Your task to perform on an android device: turn on the 24-hour format for clock Image 0: 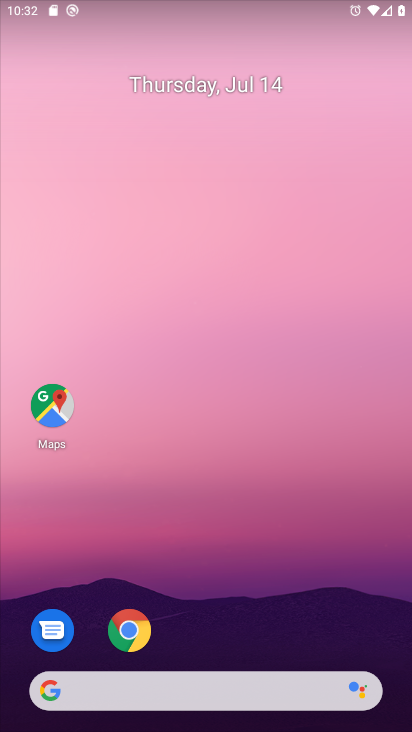
Step 0: drag from (178, 631) to (322, 14)
Your task to perform on an android device: turn on the 24-hour format for clock Image 1: 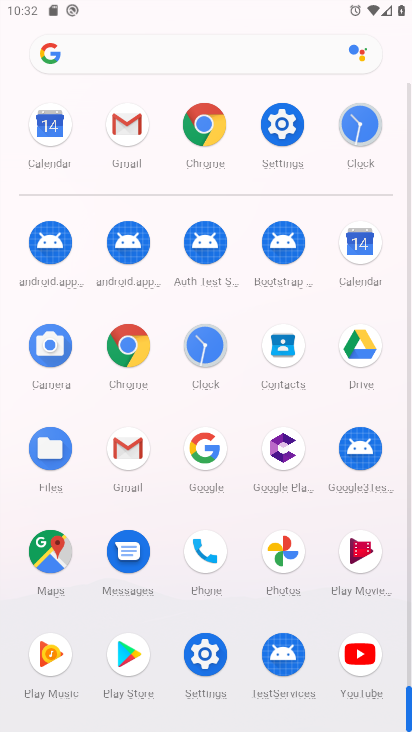
Step 1: click (195, 338)
Your task to perform on an android device: turn on the 24-hour format for clock Image 2: 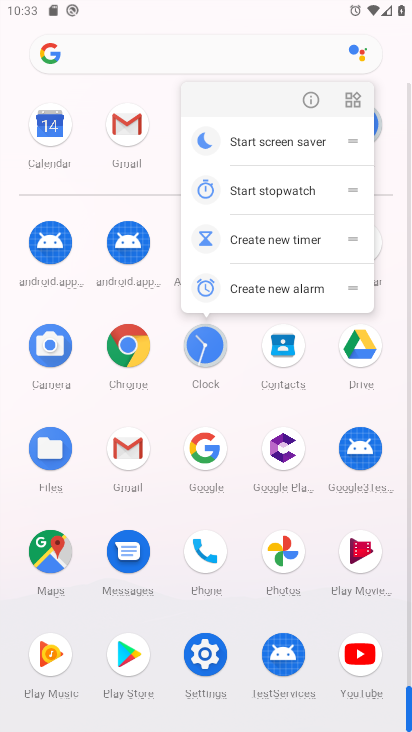
Step 2: click (315, 102)
Your task to perform on an android device: turn on the 24-hour format for clock Image 3: 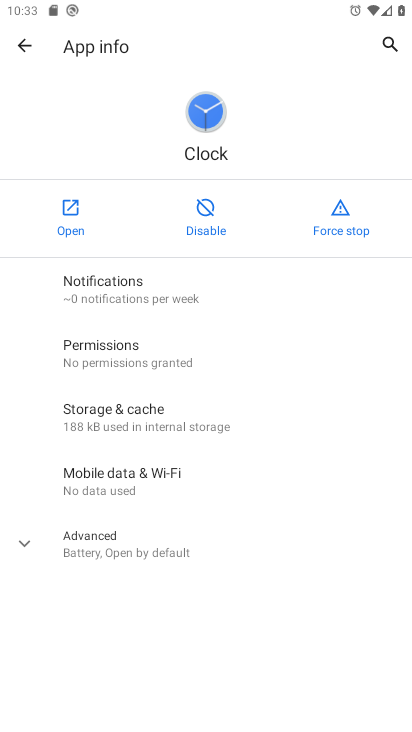
Step 3: click (69, 226)
Your task to perform on an android device: turn on the 24-hour format for clock Image 4: 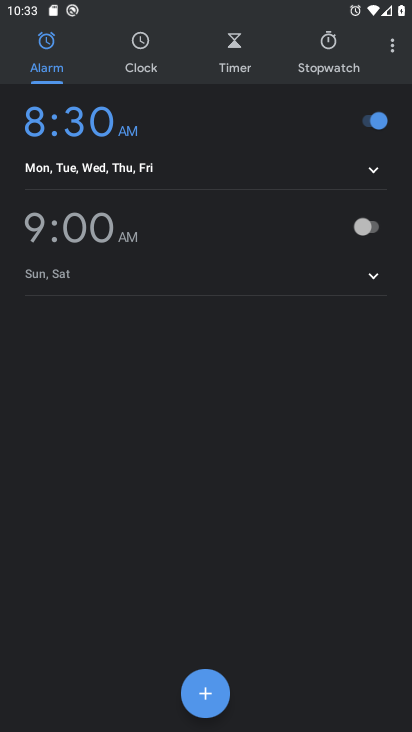
Step 4: click (390, 48)
Your task to perform on an android device: turn on the 24-hour format for clock Image 5: 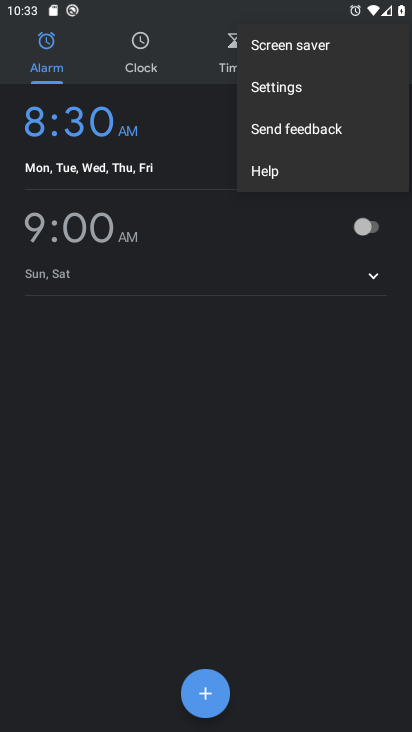
Step 5: click (291, 85)
Your task to perform on an android device: turn on the 24-hour format for clock Image 6: 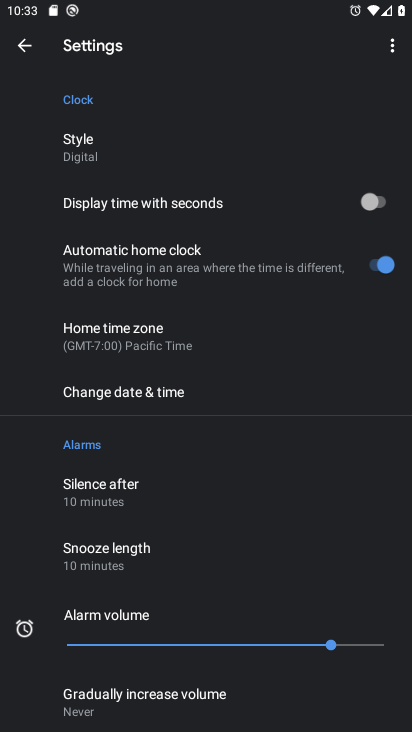
Step 6: click (141, 402)
Your task to perform on an android device: turn on the 24-hour format for clock Image 7: 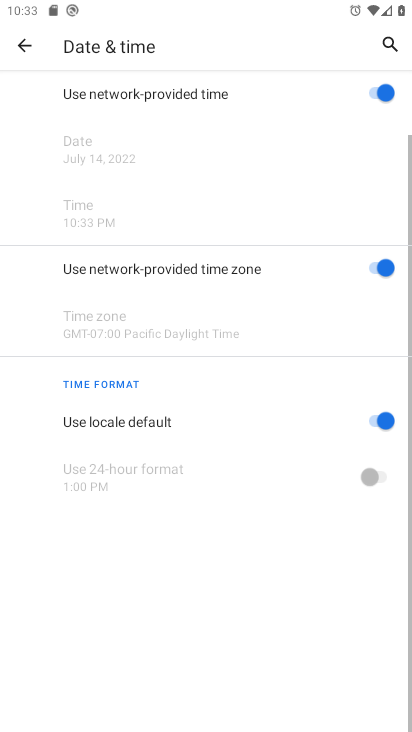
Step 7: drag from (187, 473) to (236, 204)
Your task to perform on an android device: turn on the 24-hour format for clock Image 8: 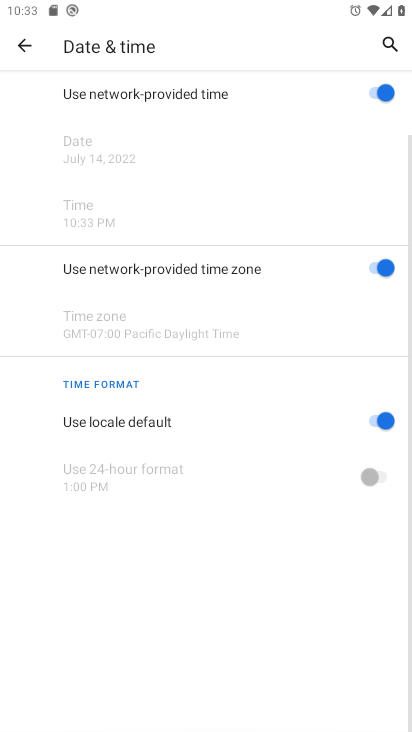
Step 8: click (385, 426)
Your task to perform on an android device: turn on the 24-hour format for clock Image 9: 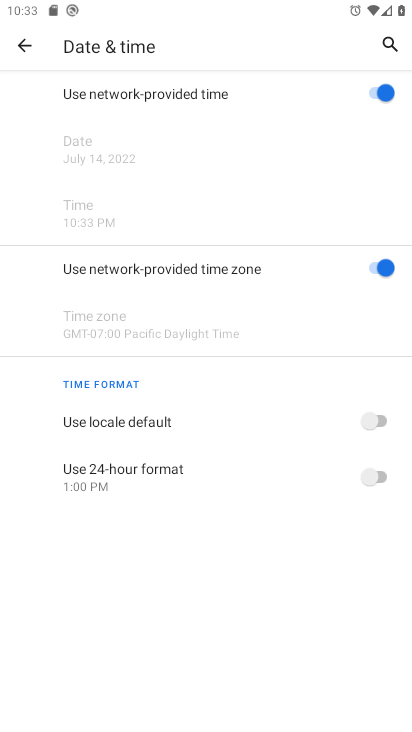
Step 9: click (380, 477)
Your task to perform on an android device: turn on the 24-hour format for clock Image 10: 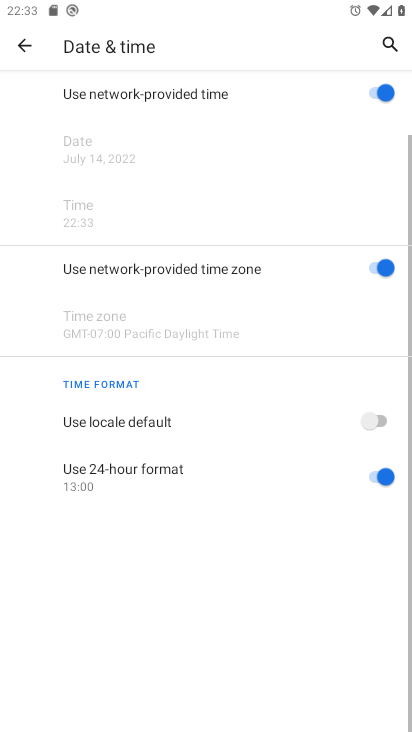
Step 10: task complete